Your task to perform on an android device: What's on my calendar tomorrow? Image 0: 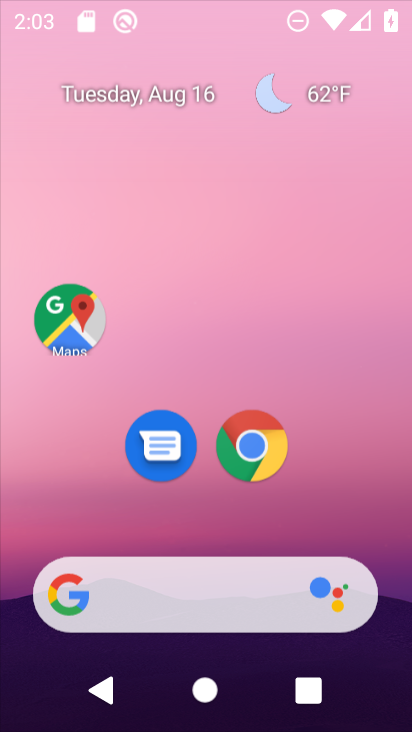
Step 0: press home button
Your task to perform on an android device: What's on my calendar tomorrow? Image 1: 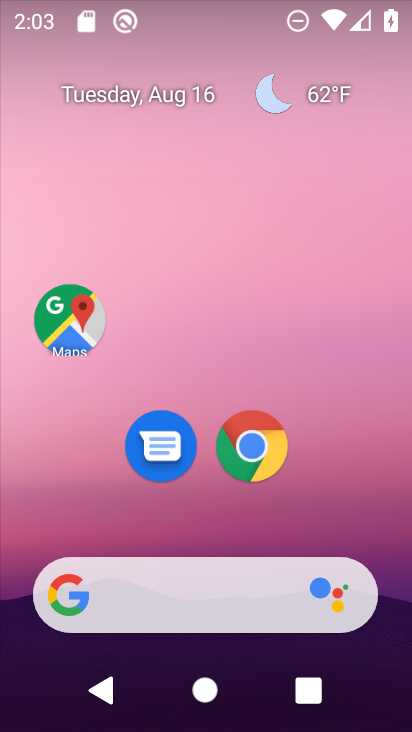
Step 1: drag from (209, 530) to (201, 0)
Your task to perform on an android device: What's on my calendar tomorrow? Image 2: 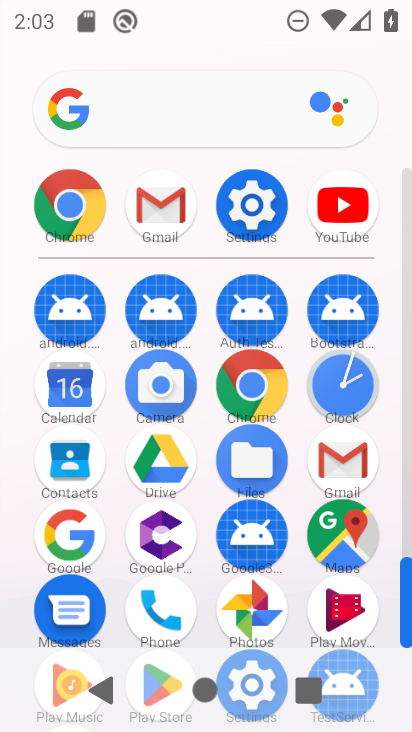
Step 2: click (70, 384)
Your task to perform on an android device: What's on my calendar tomorrow? Image 3: 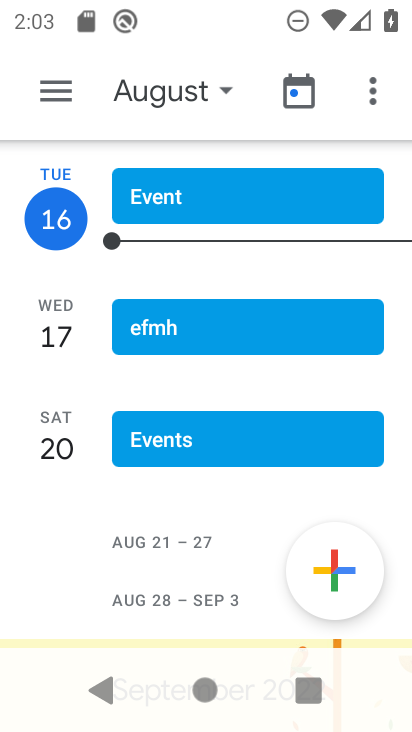
Step 3: click (218, 96)
Your task to perform on an android device: What's on my calendar tomorrow? Image 4: 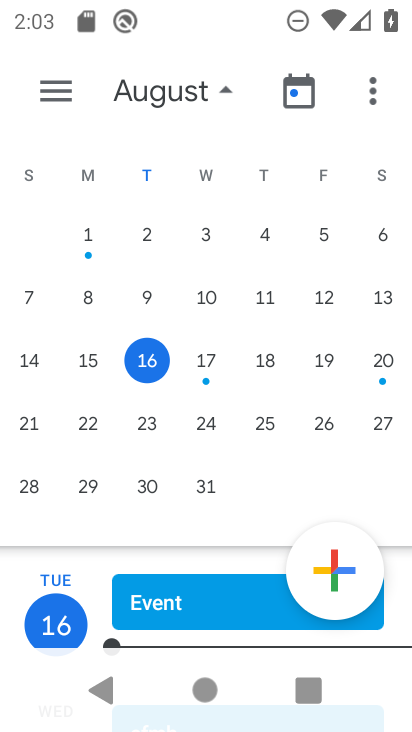
Step 4: click (206, 367)
Your task to perform on an android device: What's on my calendar tomorrow? Image 5: 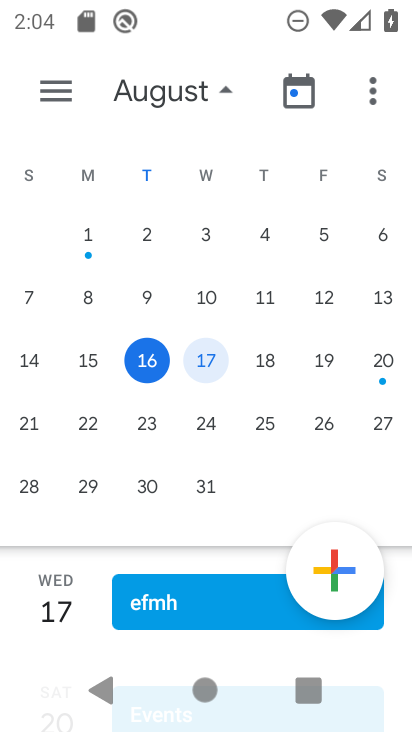
Step 5: click (78, 597)
Your task to perform on an android device: What's on my calendar tomorrow? Image 6: 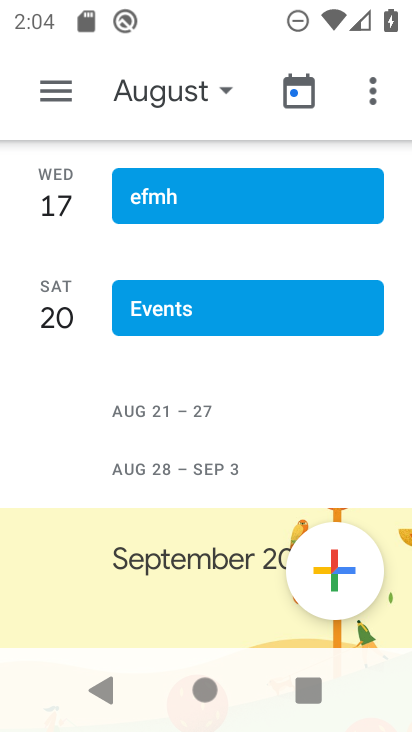
Step 6: click (79, 193)
Your task to perform on an android device: What's on my calendar tomorrow? Image 7: 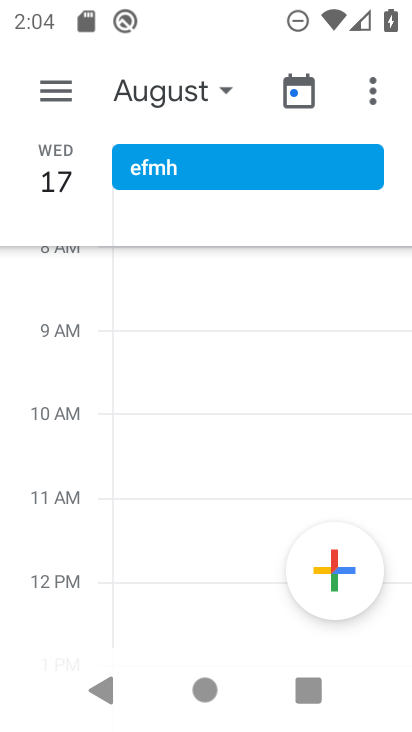
Step 7: task complete